Your task to perform on an android device: turn off notifications settings in the gmail app Image 0: 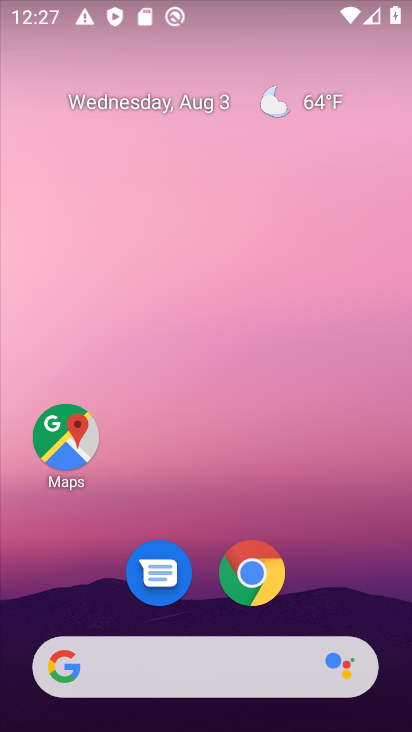
Step 0: drag from (202, 667) to (224, 250)
Your task to perform on an android device: turn off notifications settings in the gmail app Image 1: 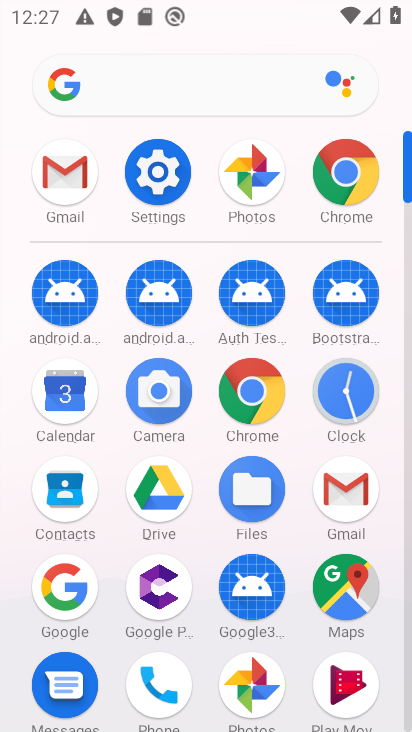
Step 1: click (359, 507)
Your task to perform on an android device: turn off notifications settings in the gmail app Image 2: 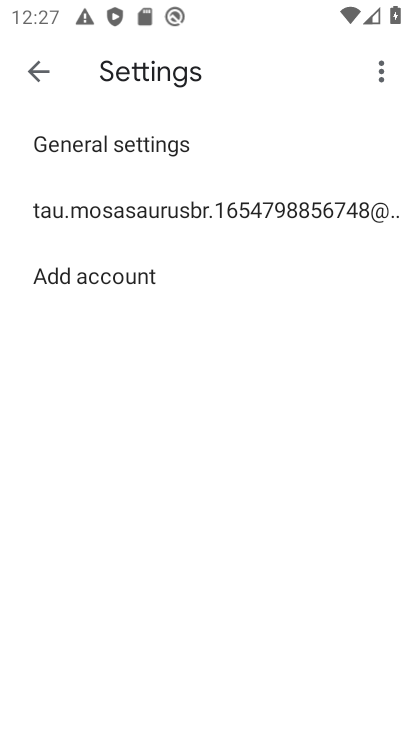
Step 2: click (164, 148)
Your task to perform on an android device: turn off notifications settings in the gmail app Image 3: 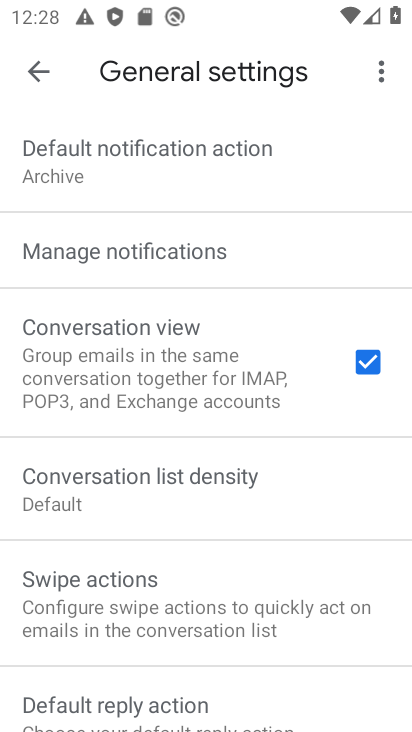
Step 3: click (117, 256)
Your task to perform on an android device: turn off notifications settings in the gmail app Image 4: 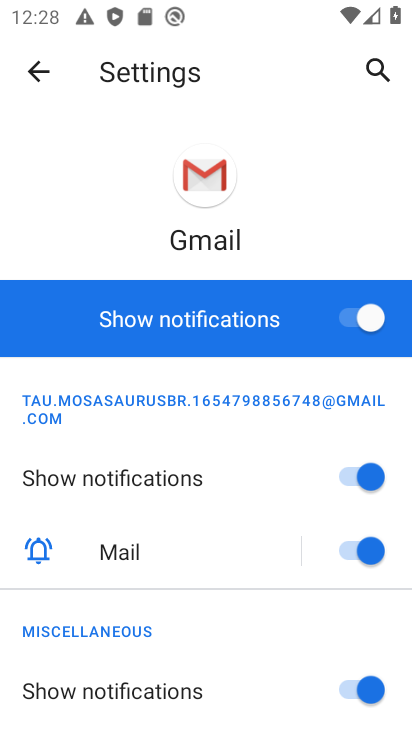
Step 4: click (366, 318)
Your task to perform on an android device: turn off notifications settings in the gmail app Image 5: 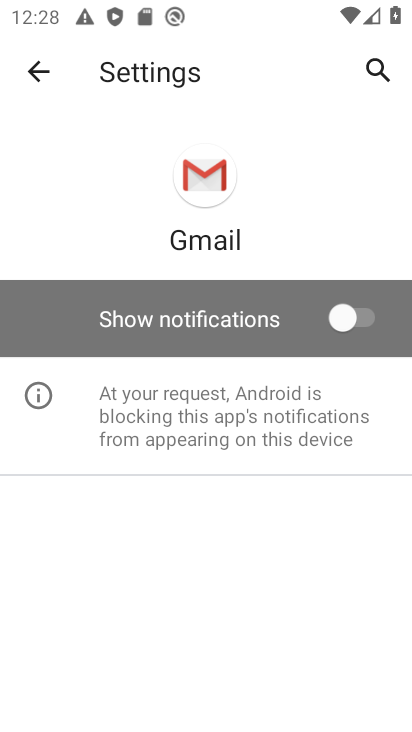
Step 5: task complete